Your task to perform on an android device: add a label to a message in the gmail app Image 0: 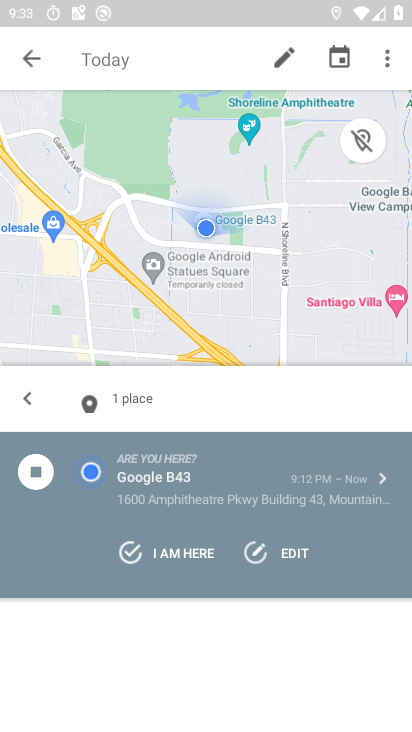
Step 0: press back button
Your task to perform on an android device: add a label to a message in the gmail app Image 1: 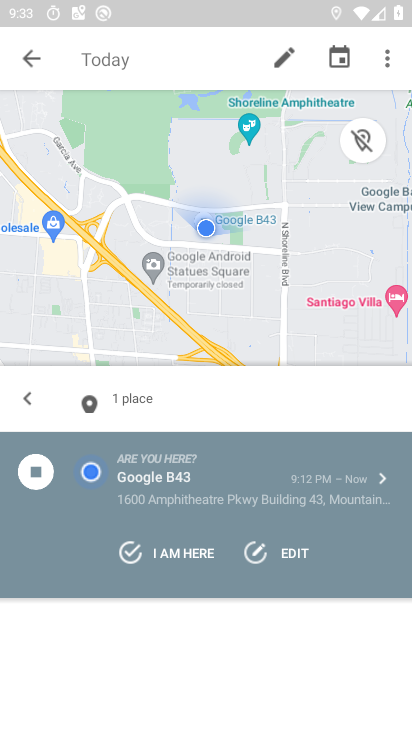
Step 1: press back button
Your task to perform on an android device: add a label to a message in the gmail app Image 2: 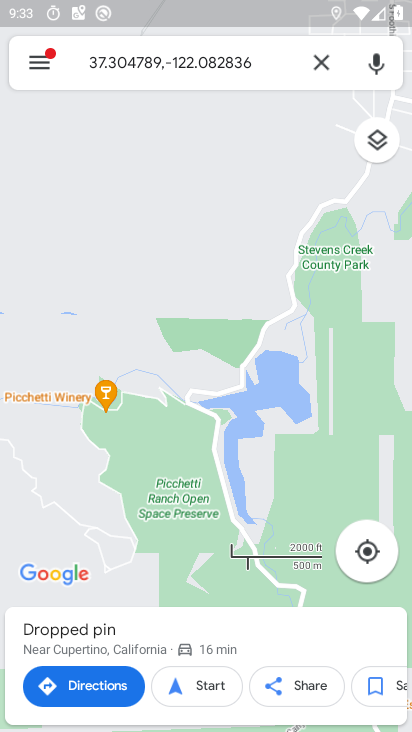
Step 2: press back button
Your task to perform on an android device: add a label to a message in the gmail app Image 3: 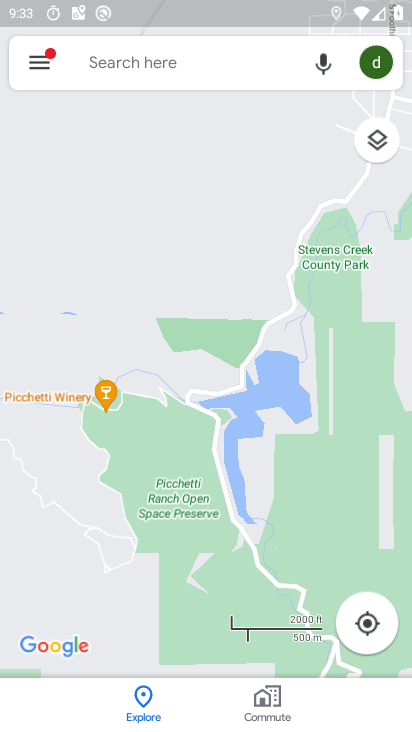
Step 3: click (21, 51)
Your task to perform on an android device: add a label to a message in the gmail app Image 4: 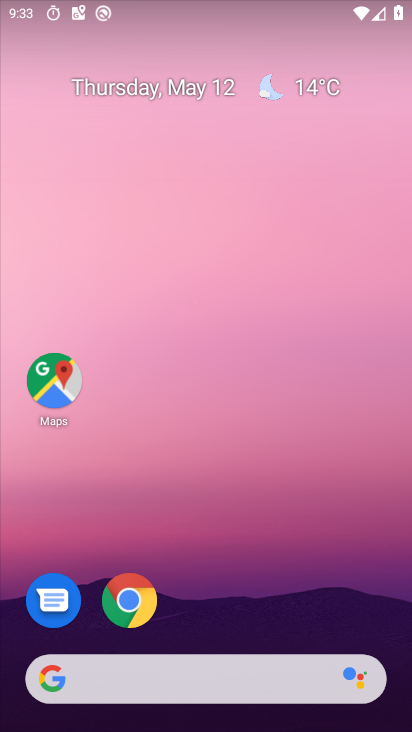
Step 4: drag from (268, 565) to (117, 61)
Your task to perform on an android device: add a label to a message in the gmail app Image 5: 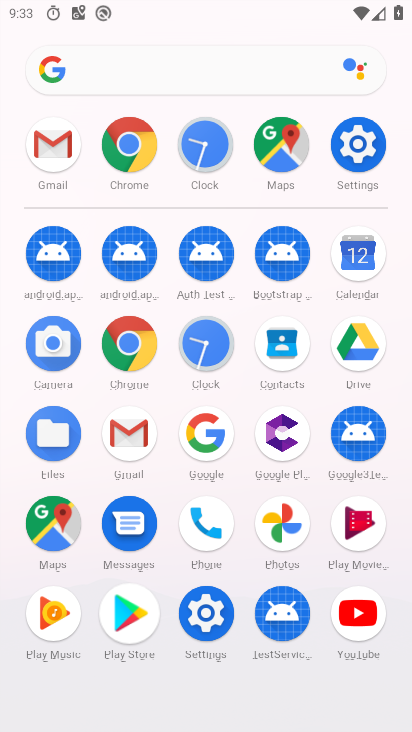
Step 5: click (121, 439)
Your task to perform on an android device: add a label to a message in the gmail app Image 6: 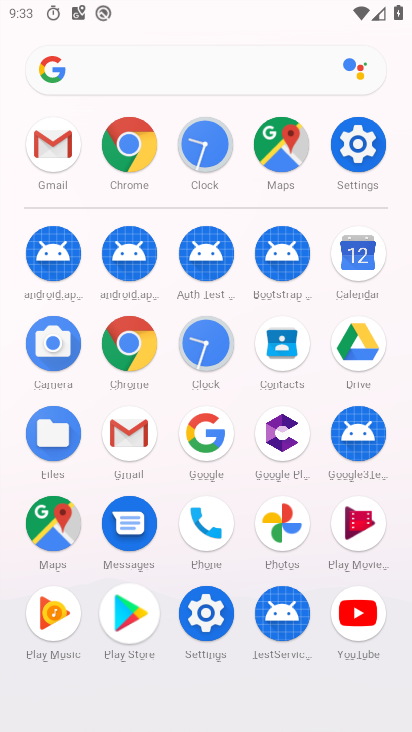
Step 6: click (121, 439)
Your task to perform on an android device: add a label to a message in the gmail app Image 7: 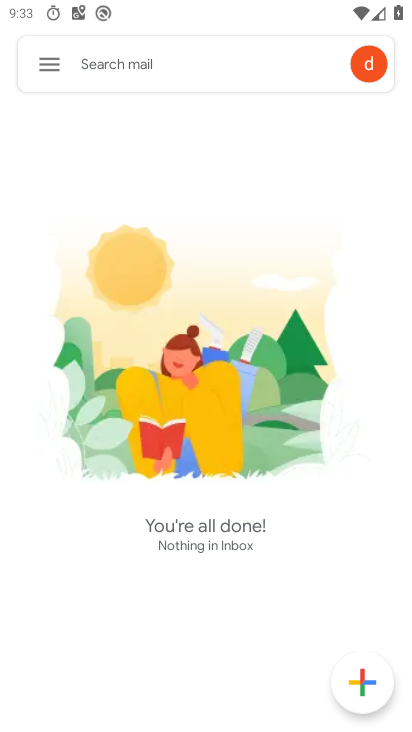
Step 7: click (54, 60)
Your task to perform on an android device: add a label to a message in the gmail app Image 8: 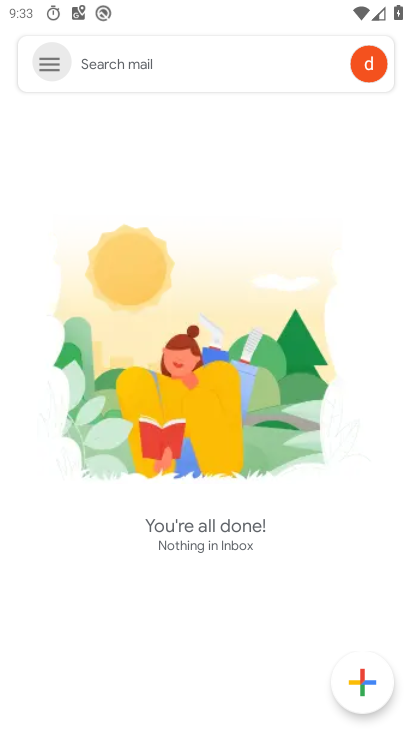
Step 8: click (54, 63)
Your task to perform on an android device: add a label to a message in the gmail app Image 9: 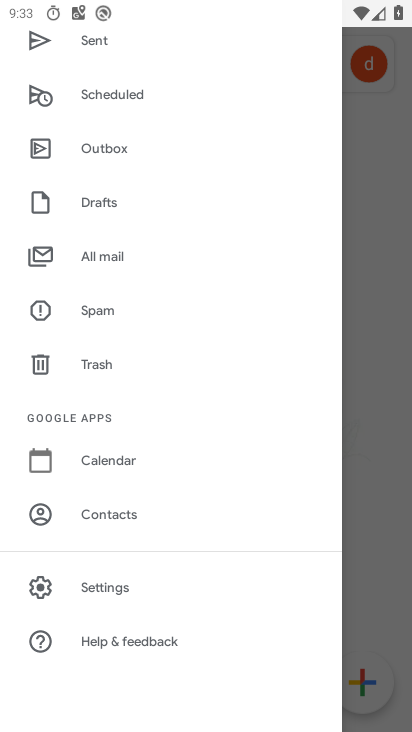
Step 9: click (98, 587)
Your task to perform on an android device: add a label to a message in the gmail app Image 10: 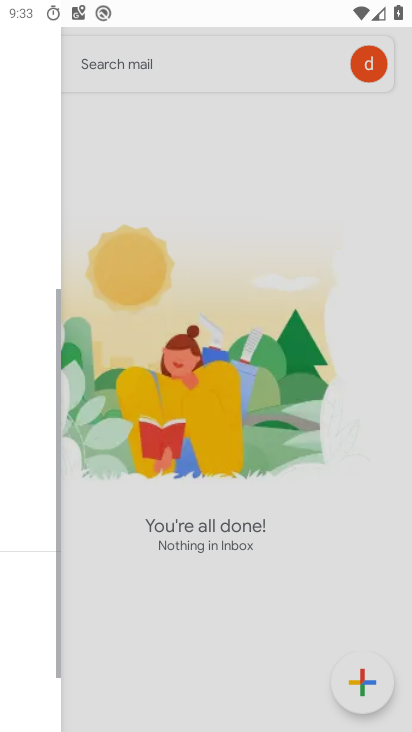
Step 10: click (98, 587)
Your task to perform on an android device: add a label to a message in the gmail app Image 11: 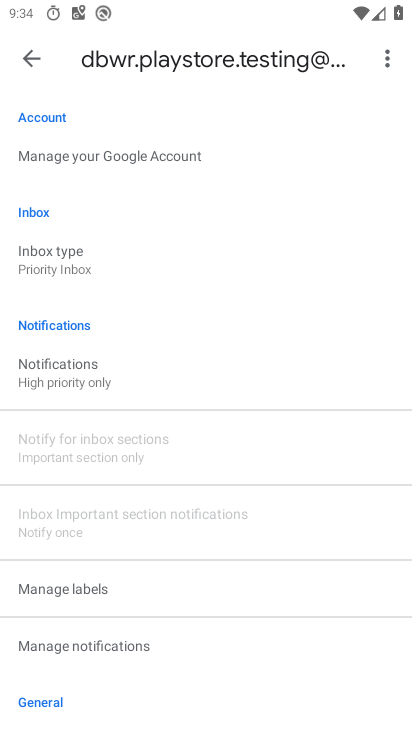
Step 11: click (20, 59)
Your task to perform on an android device: add a label to a message in the gmail app Image 12: 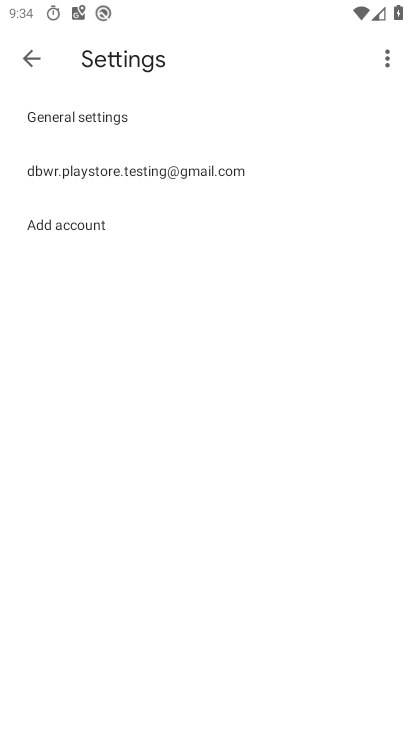
Step 12: click (23, 58)
Your task to perform on an android device: add a label to a message in the gmail app Image 13: 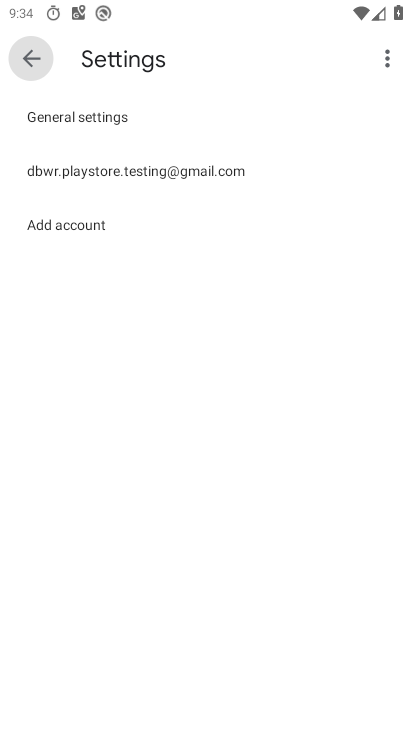
Step 13: click (24, 58)
Your task to perform on an android device: add a label to a message in the gmail app Image 14: 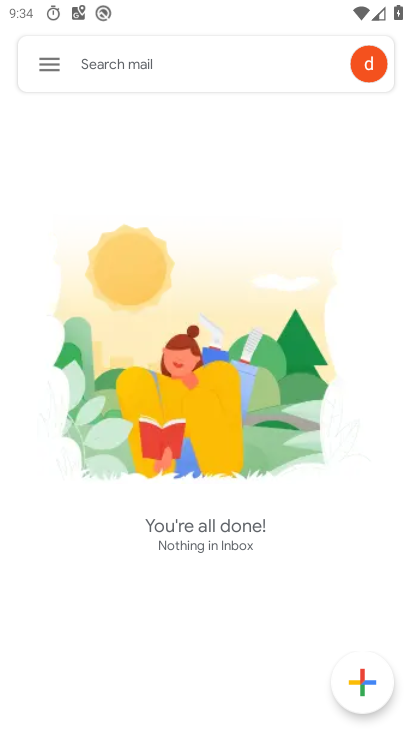
Step 14: click (42, 56)
Your task to perform on an android device: add a label to a message in the gmail app Image 15: 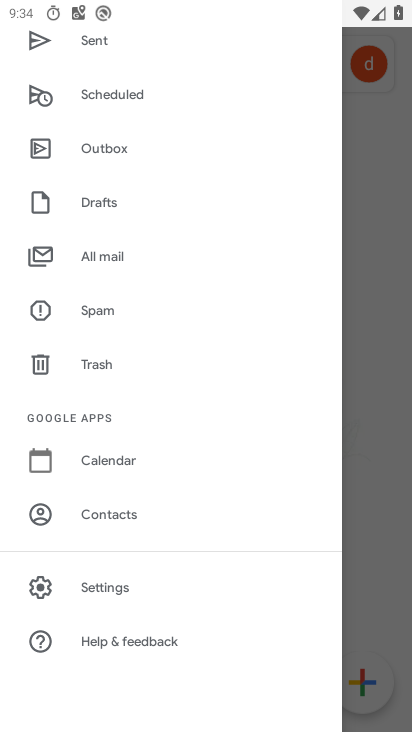
Step 15: click (97, 252)
Your task to perform on an android device: add a label to a message in the gmail app Image 16: 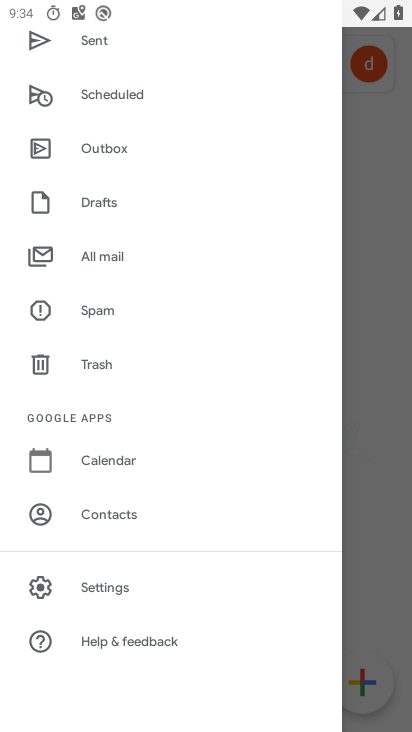
Step 16: click (97, 252)
Your task to perform on an android device: add a label to a message in the gmail app Image 17: 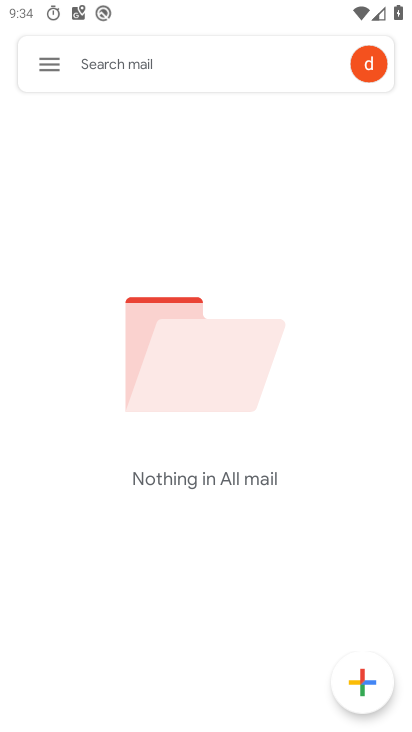
Step 17: task complete